Your task to perform on an android device: turn notification dots on Image 0: 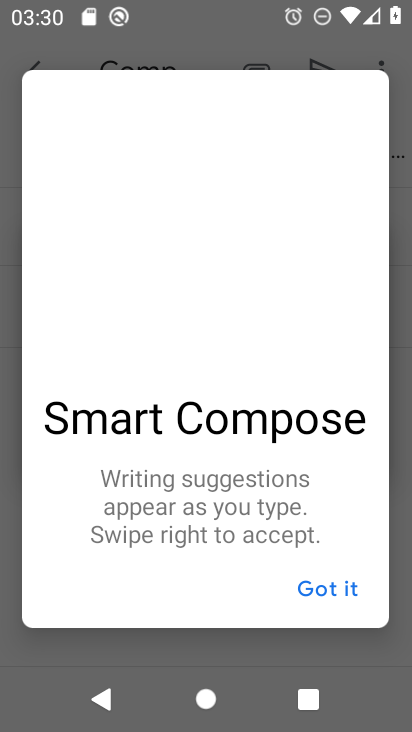
Step 0: press home button
Your task to perform on an android device: turn notification dots on Image 1: 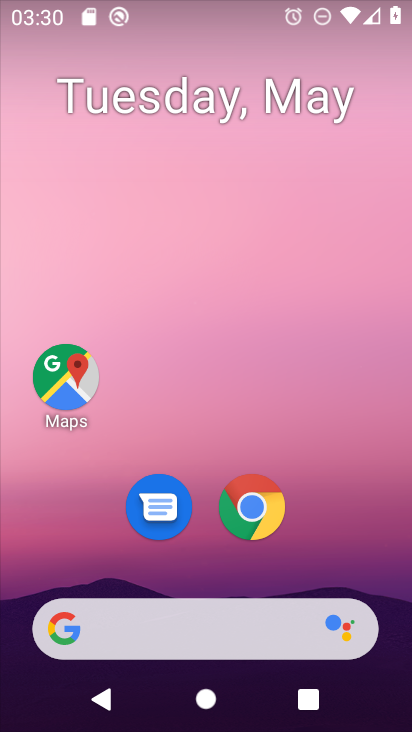
Step 1: drag from (211, 565) to (206, 230)
Your task to perform on an android device: turn notification dots on Image 2: 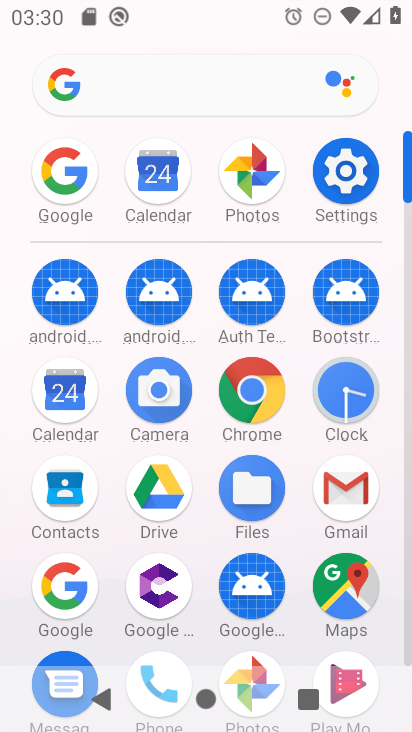
Step 2: click (334, 168)
Your task to perform on an android device: turn notification dots on Image 3: 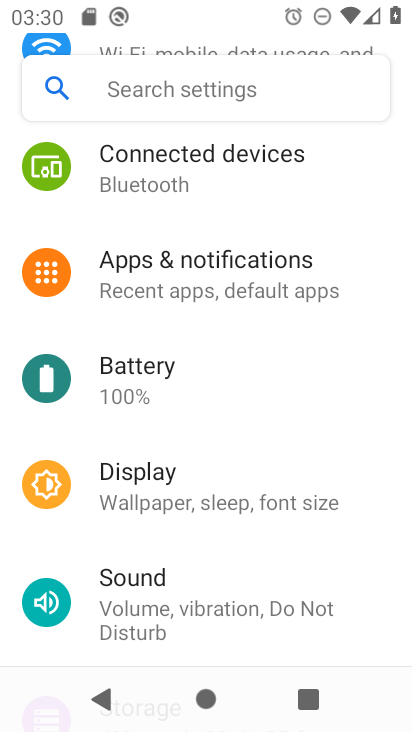
Step 3: click (174, 263)
Your task to perform on an android device: turn notification dots on Image 4: 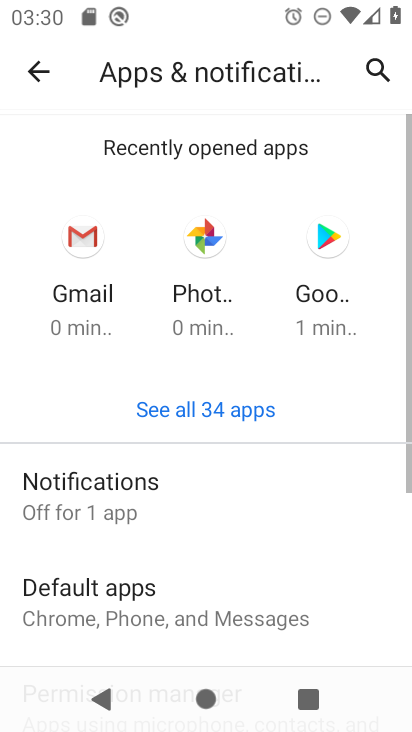
Step 4: click (149, 505)
Your task to perform on an android device: turn notification dots on Image 5: 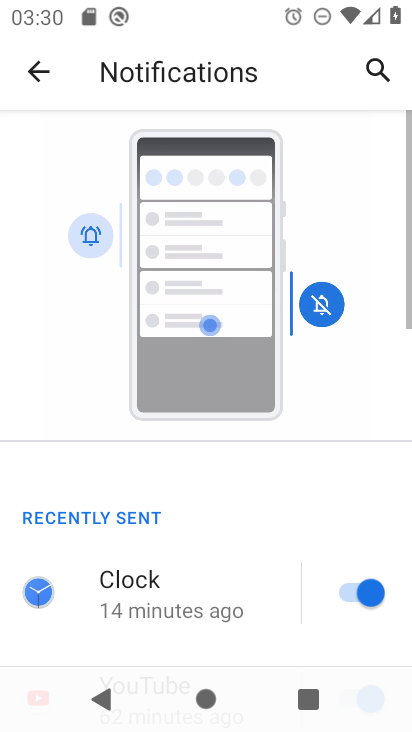
Step 5: drag from (210, 627) to (222, 188)
Your task to perform on an android device: turn notification dots on Image 6: 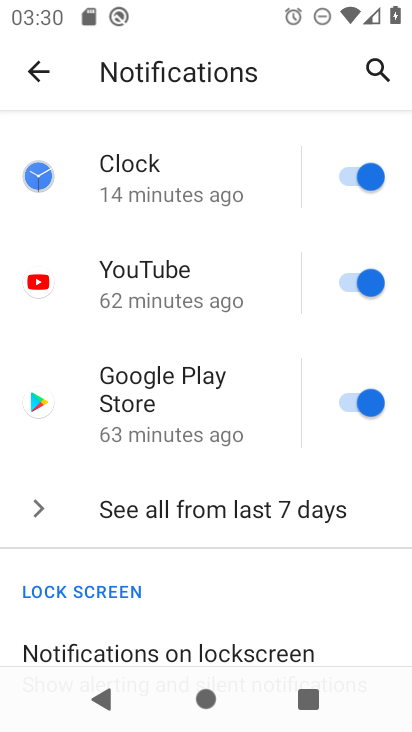
Step 6: drag from (227, 605) to (245, 274)
Your task to perform on an android device: turn notification dots on Image 7: 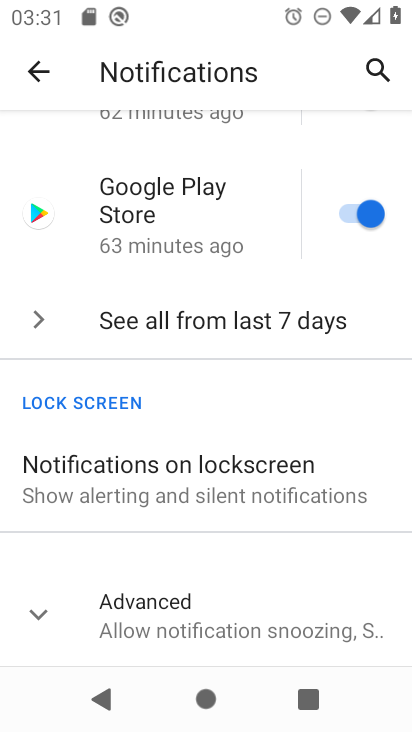
Step 7: click (232, 637)
Your task to perform on an android device: turn notification dots on Image 8: 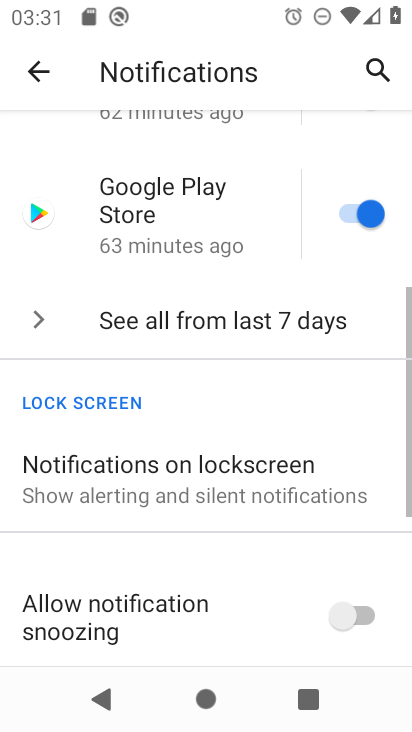
Step 8: task complete